Your task to perform on an android device: open device folders in google photos Image 0: 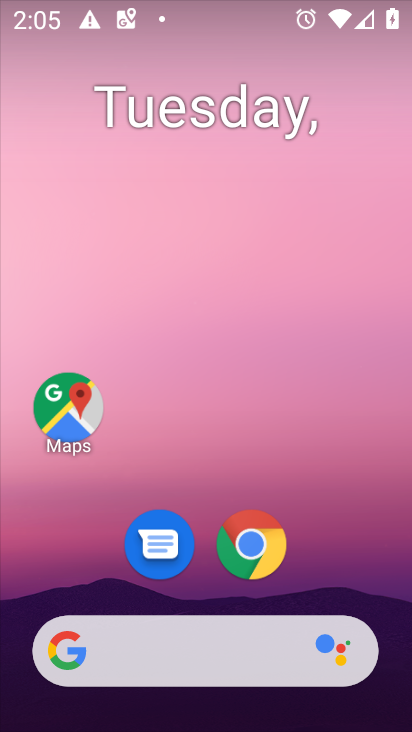
Step 0: drag from (303, 467) to (175, 169)
Your task to perform on an android device: open device folders in google photos Image 1: 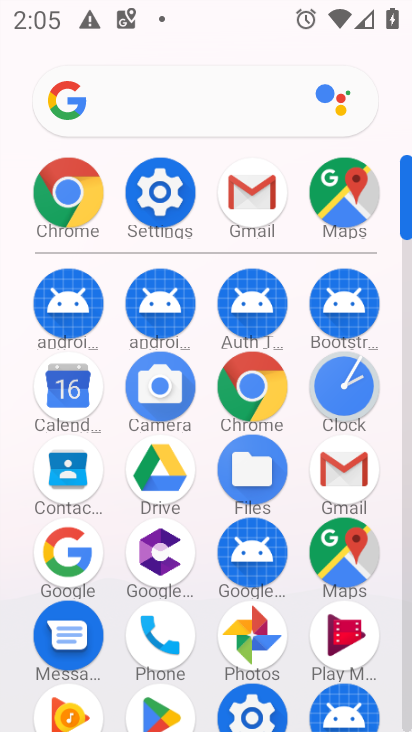
Step 1: click (258, 387)
Your task to perform on an android device: open device folders in google photos Image 2: 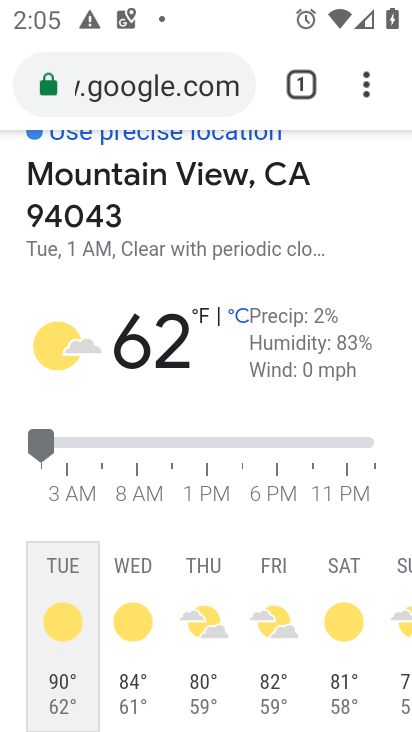
Step 2: press home button
Your task to perform on an android device: open device folders in google photos Image 3: 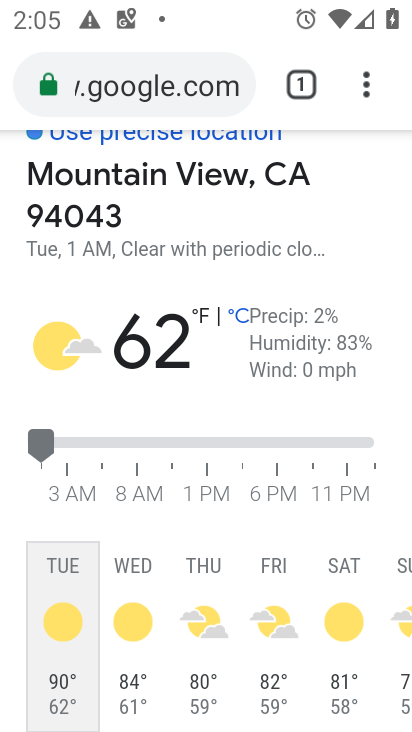
Step 3: press home button
Your task to perform on an android device: open device folders in google photos Image 4: 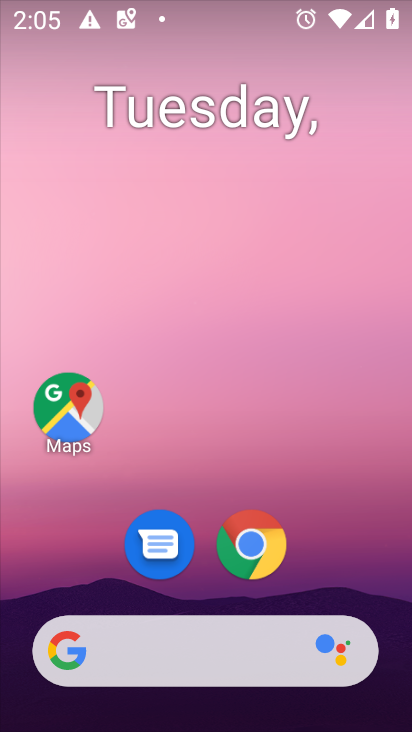
Step 4: drag from (294, 403) to (140, 14)
Your task to perform on an android device: open device folders in google photos Image 5: 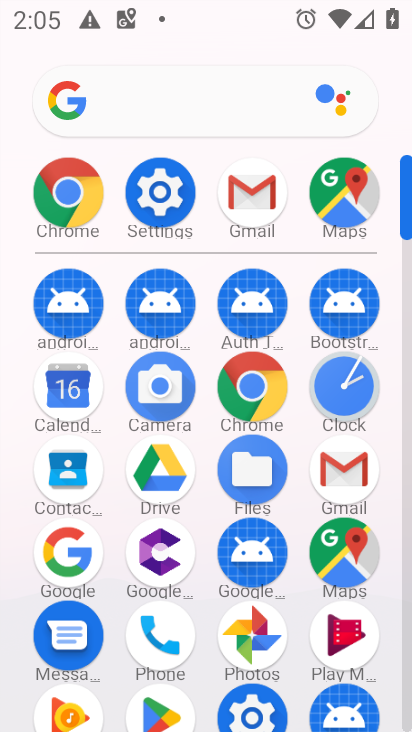
Step 5: click (244, 623)
Your task to perform on an android device: open device folders in google photos Image 6: 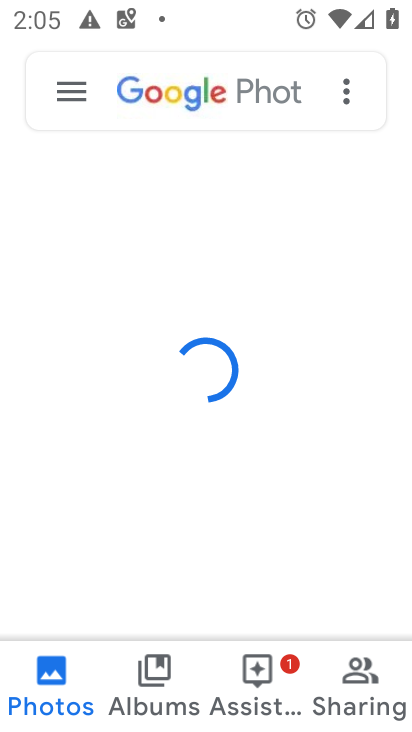
Step 6: click (72, 84)
Your task to perform on an android device: open device folders in google photos Image 7: 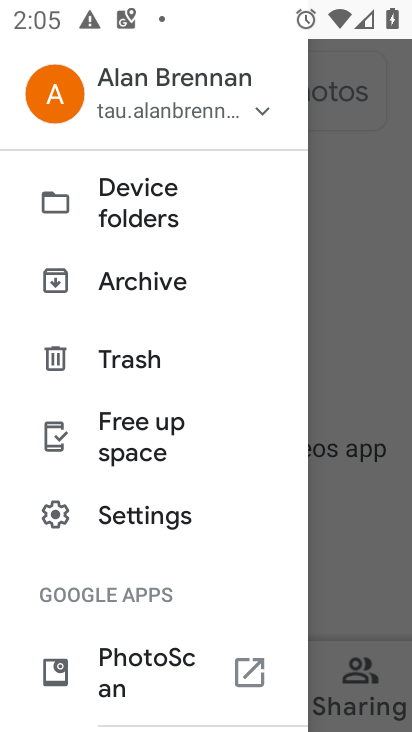
Step 7: click (140, 207)
Your task to perform on an android device: open device folders in google photos Image 8: 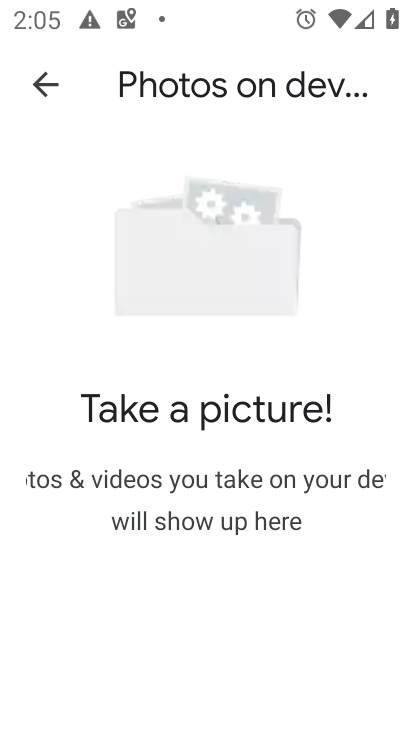
Step 8: task complete